Your task to perform on an android device: Open Reddit Image 0: 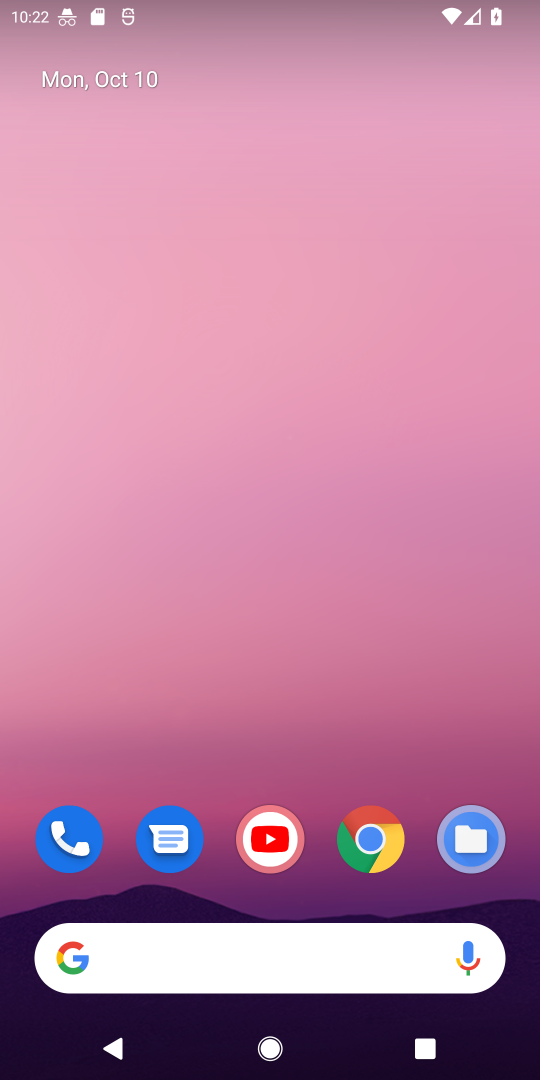
Step 0: drag from (322, 881) to (297, 0)
Your task to perform on an android device: Open Reddit Image 1: 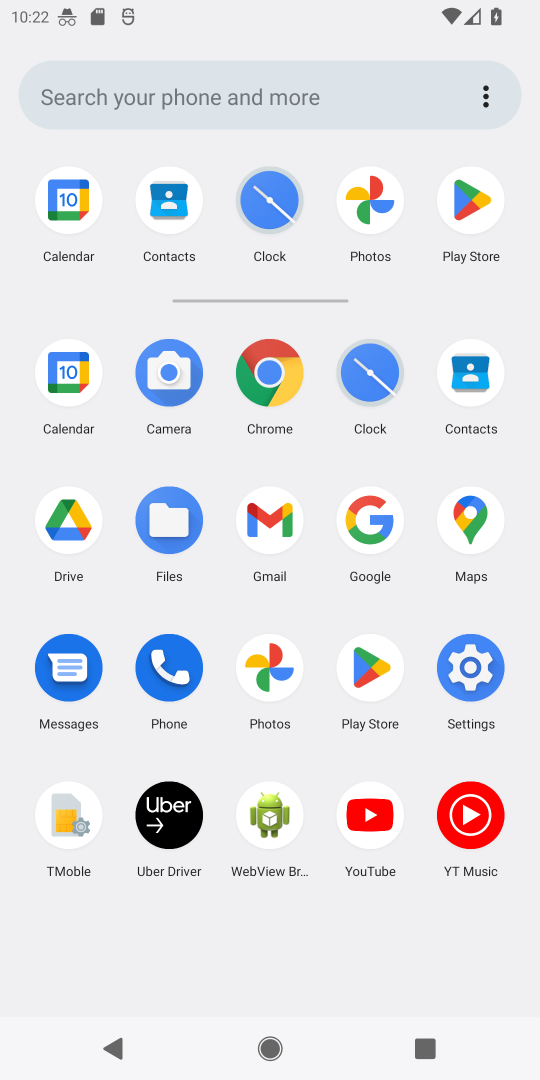
Step 1: click (277, 367)
Your task to perform on an android device: Open Reddit Image 2: 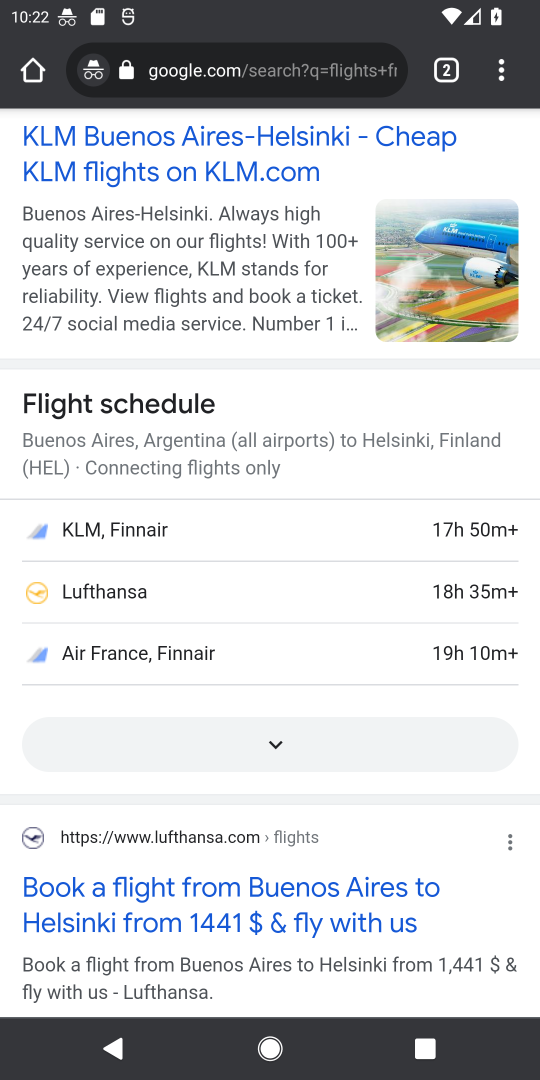
Step 2: click (291, 74)
Your task to perform on an android device: Open Reddit Image 3: 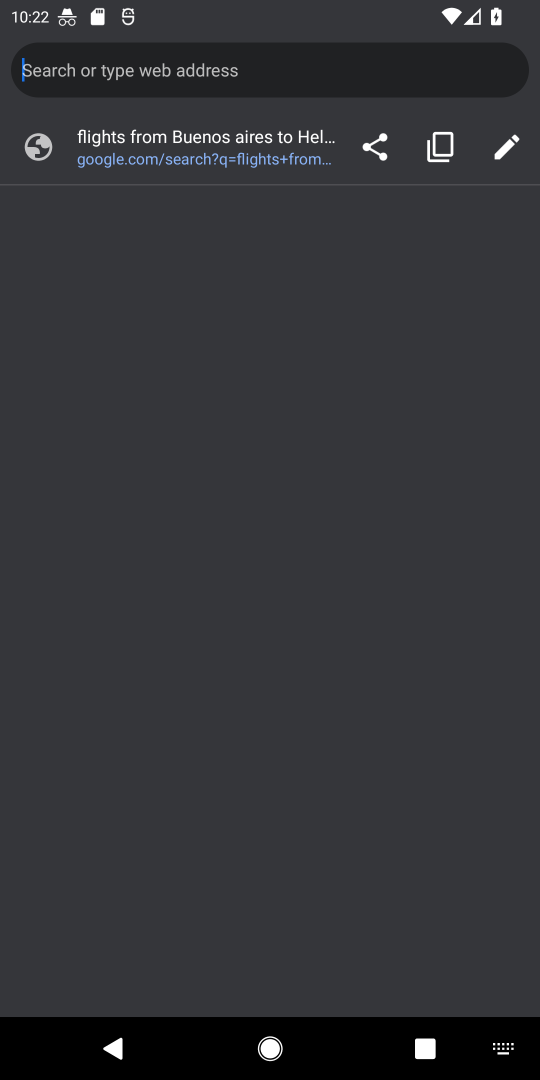
Step 3: type "Reddit"
Your task to perform on an android device: Open Reddit Image 4: 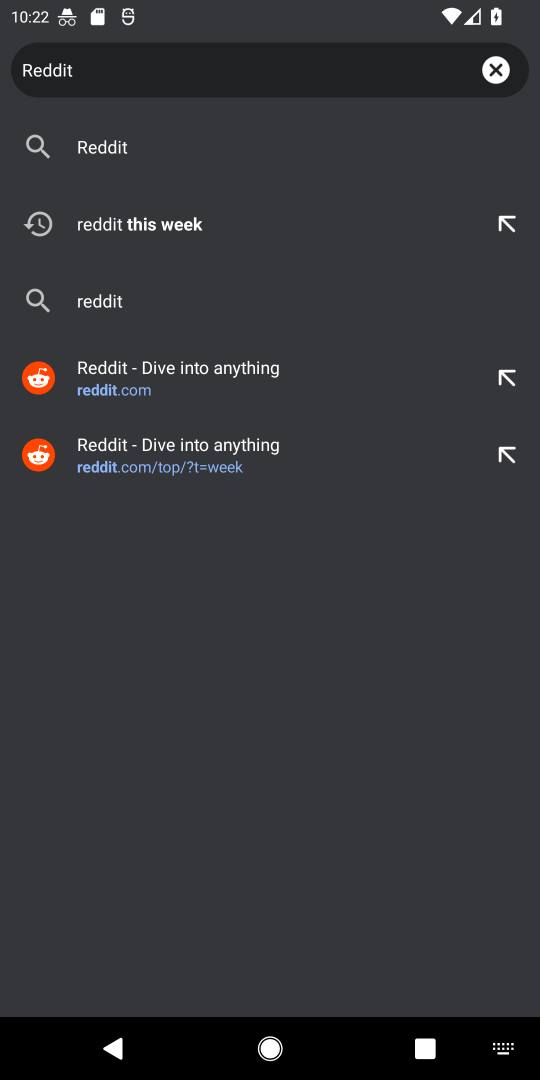
Step 4: click (161, 368)
Your task to perform on an android device: Open Reddit Image 5: 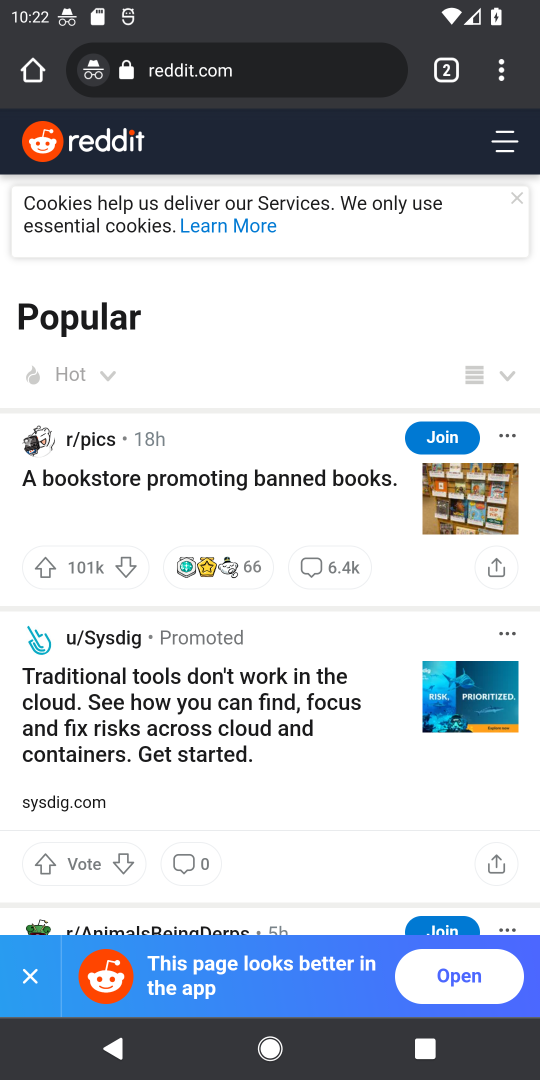
Step 5: task complete